Your task to perform on an android device: Open settings Image 0: 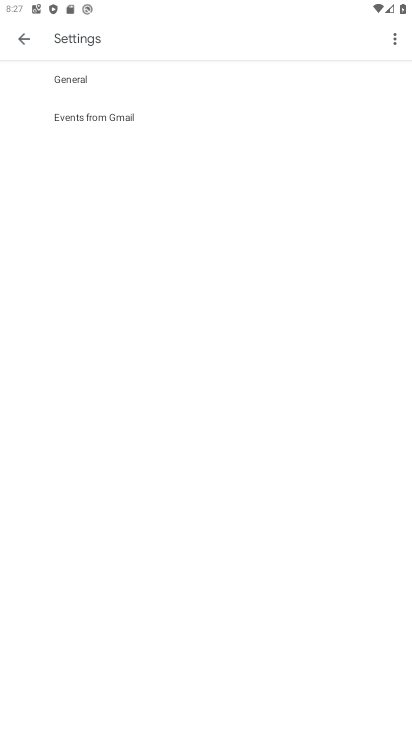
Step 0: press home button
Your task to perform on an android device: Open settings Image 1: 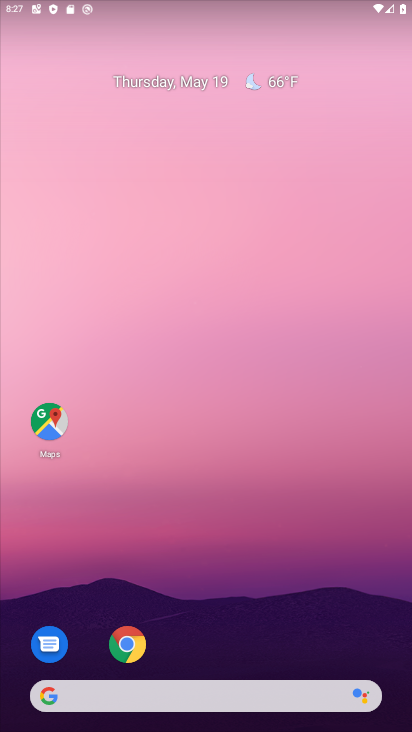
Step 1: drag from (349, 606) to (314, 180)
Your task to perform on an android device: Open settings Image 2: 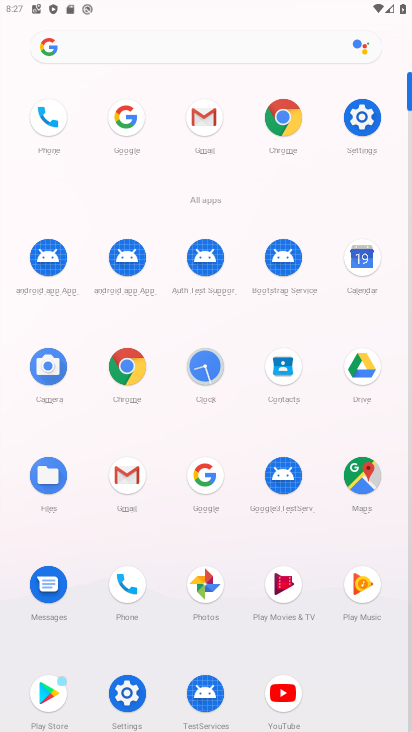
Step 2: click (364, 131)
Your task to perform on an android device: Open settings Image 3: 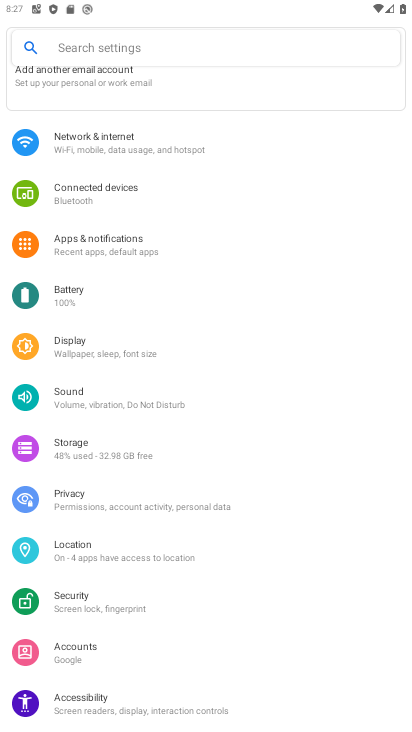
Step 3: task complete